Your task to perform on an android device: Open maps Image 0: 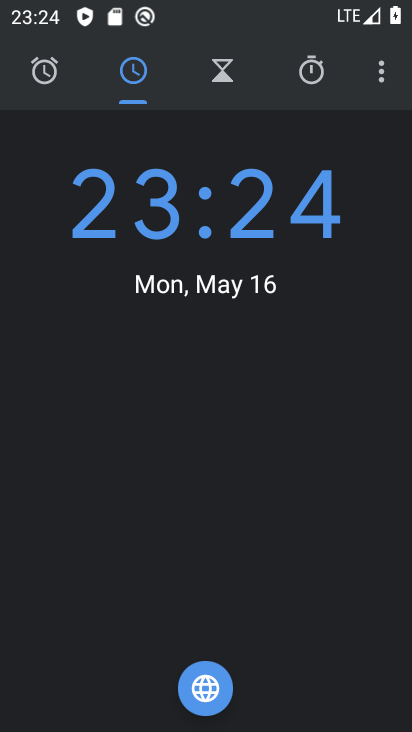
Step 0: press home button
Your task to perform on an android device: Open maps Image 1: 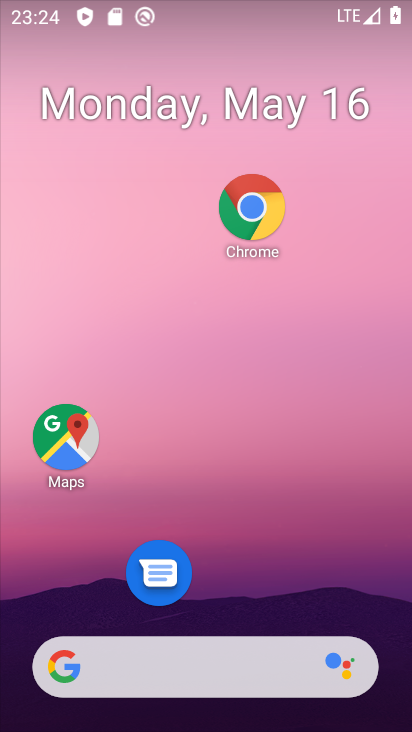
Step 1: drag from (173, 665) to (180, 48)
Your task to perform on an android device: Open maps Image 2: 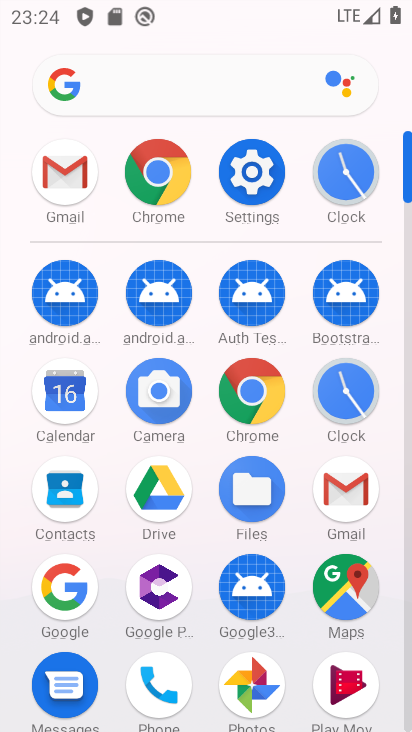
Step 2: click (336, 574)
Your task to perform on an android device: Open maps Image 3: 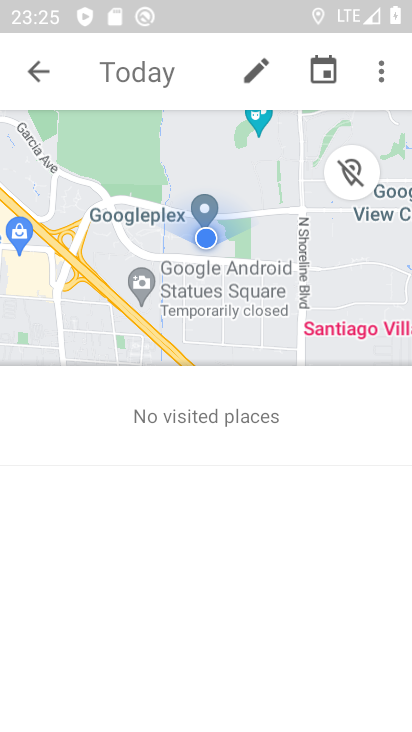
Step 3: task complete